Your task to perform on an android device: open a bookmark in the chrome app Image 0: 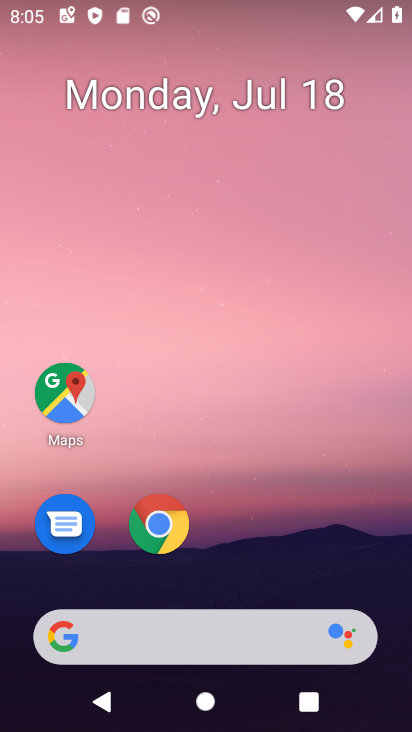
Step 0: click (169, 530)
Your task to perform on an android device: open a bookmark in the chrome app Image 1: 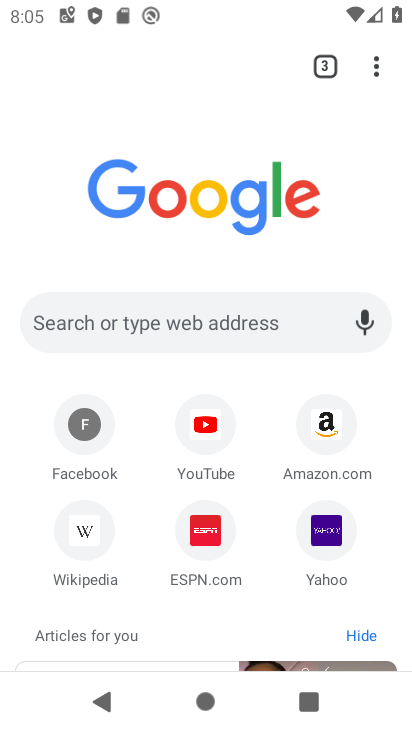
Step 1: click (375, 69)
Your task to perform on an android device: open a bookmark in the chrome app Image 2: 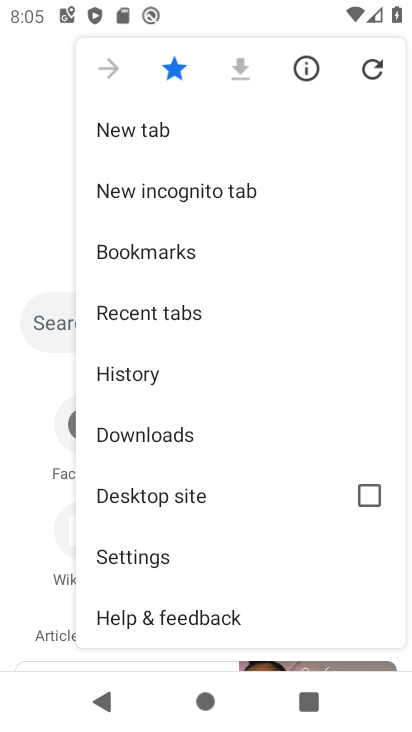
Step 2: click (195, 254)
Your task to perform on an android device: open a bookmark in the chrome app Image 3: 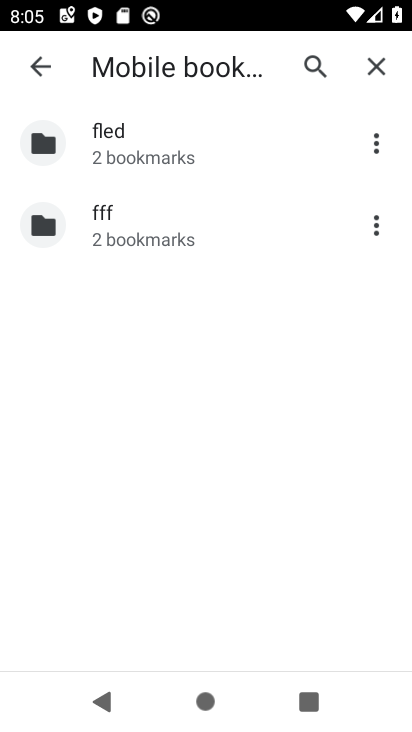
Step 3: click (196, 146)
Your task to perform on an android device: open a bookmark in the chrome app Image 4: 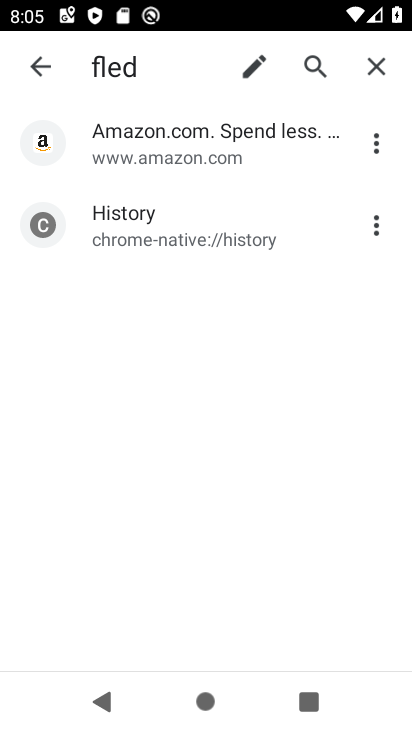
Step 4: click (196, 146)
Your task to perform on an android device: open a bookmark in the chrome app Image 5: 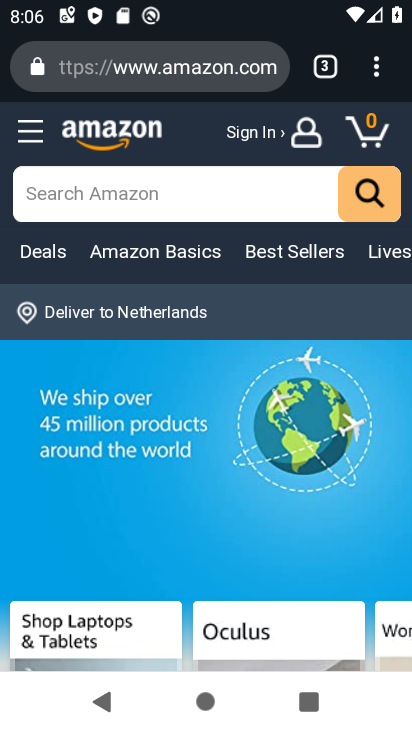
Step 5: task complete